Your task to perform on an android device: read, delete, or share a saved page in the chrome app Image 0: 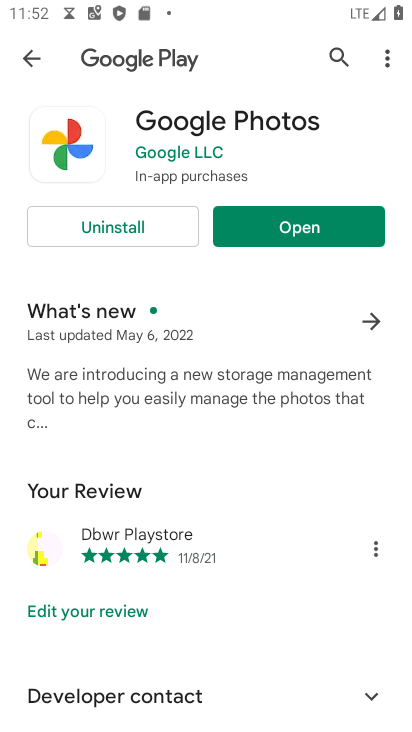
Step 0: press home button
Your task to perform on an android device: read, delete, or share a saved page in the chrome app Image 1: 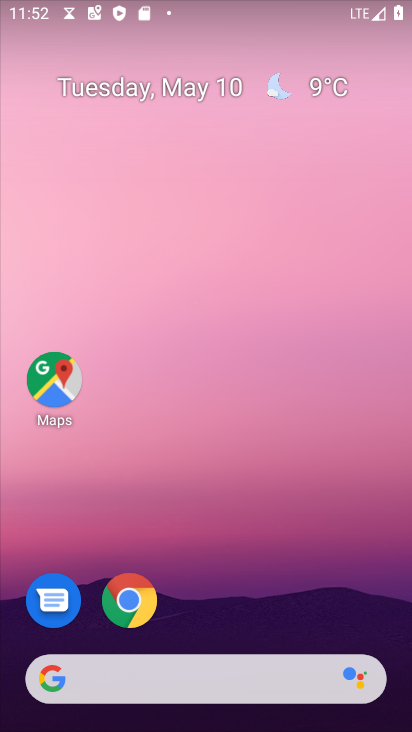
Step 1: click (147, 594)
Your task to perform on an android device: read, delete, or share a saved page in the chrome app Image 2: 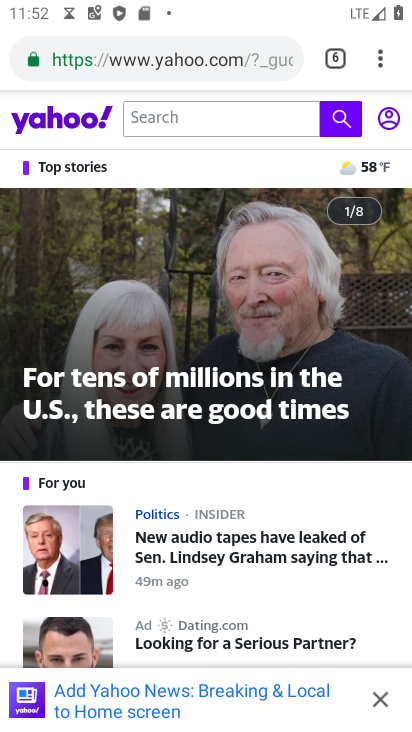
Step 2: click (376, 48)
Your task to perform on an android device: read, delete, or share a saved page in the chrome app Image 3: 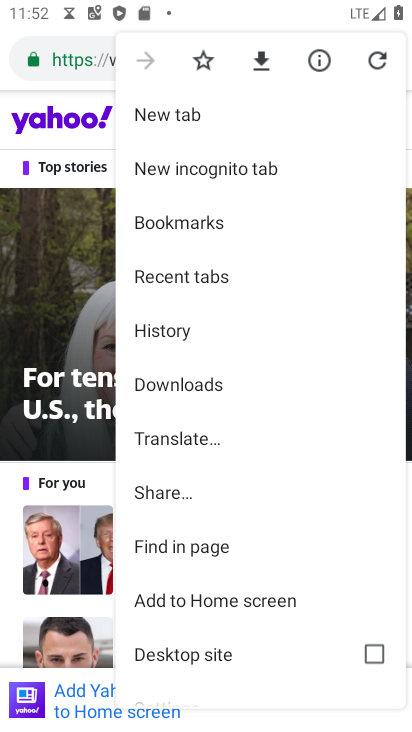
Step 3: click (195, 384)
Your task to perform on an android device: read, delete, or share a saved page in the chrome app Image 4: 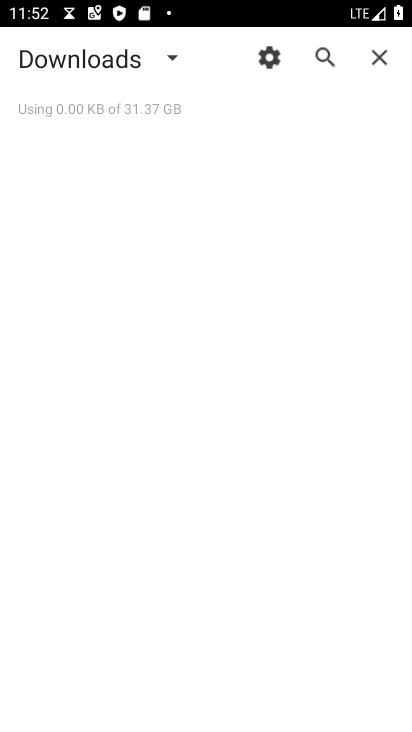
Step 4: click (132, 60)
Your task to perform on an android device: read, delete, or share a saved page in the chrome app Image 5: 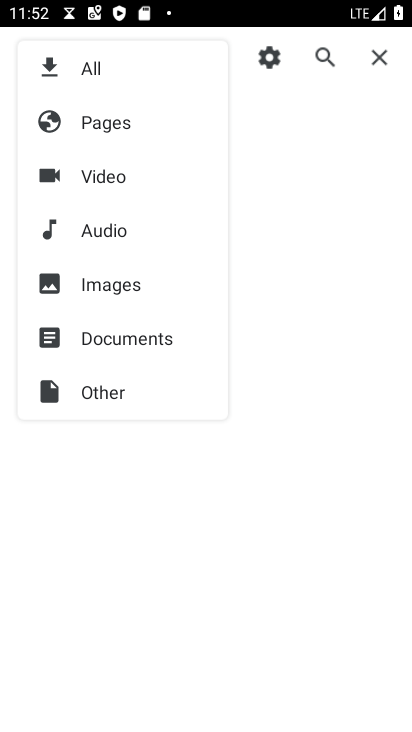
Step 5: click (112, 128)
Your task to perform on an android device: read, delete, or share a saved page in the chrome app Image 6: 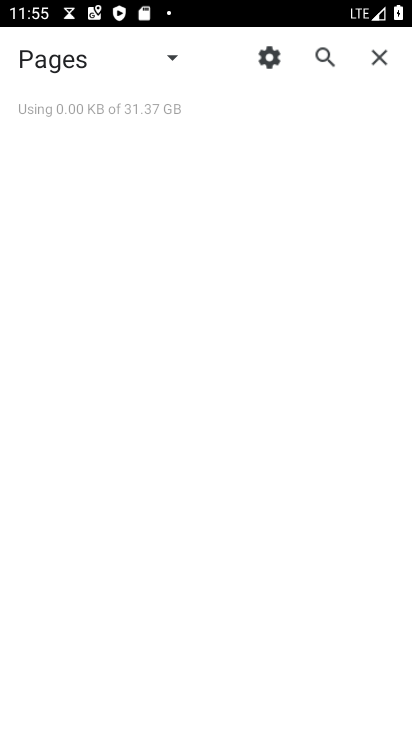
Step 6: task complete